Your task to perform on an android device: turn pop-ups on in chrome Image 0: 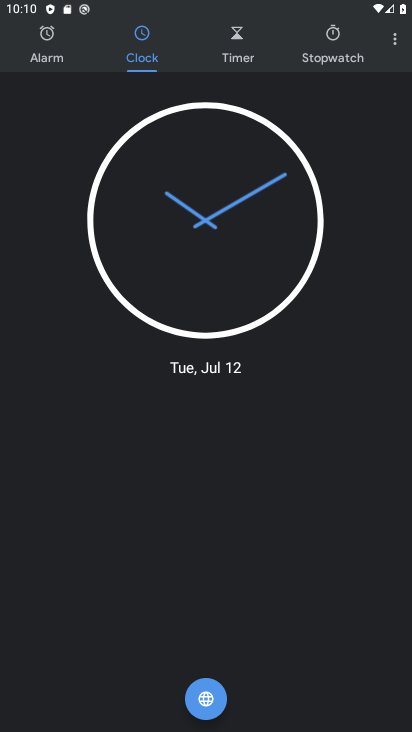
Step 0: press home button
Your task to perform on an android device: turn pop-ups on in chrome Image 1: 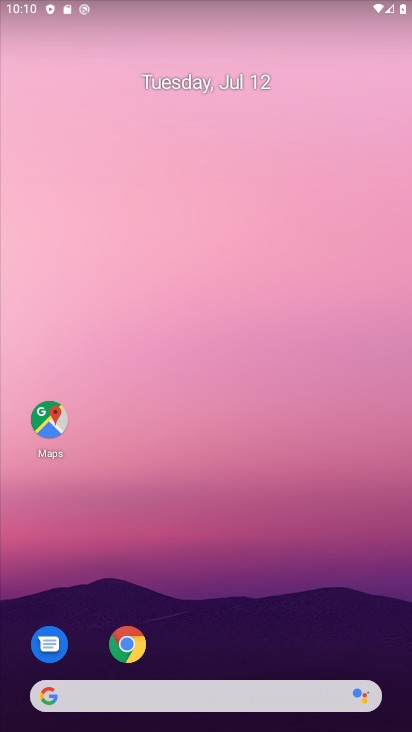
Step 1: click (198, 313)
Your task to perform on an android device: turn pop-ups on in chrome Image 2: 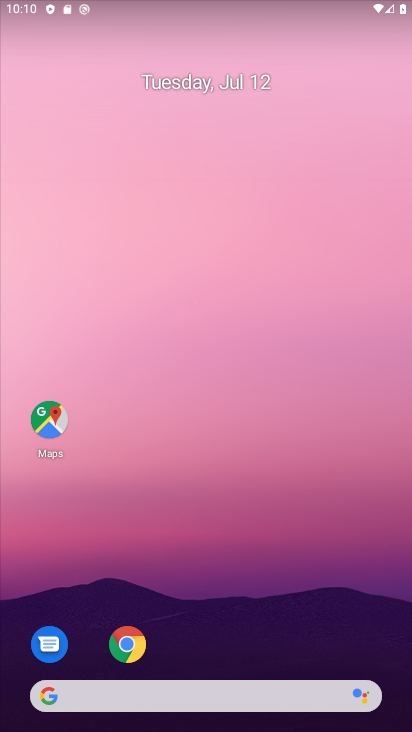
Step 2: click (123, 645)
Your task to perform on an android device: turn pop-ups on in chrome Image 3: 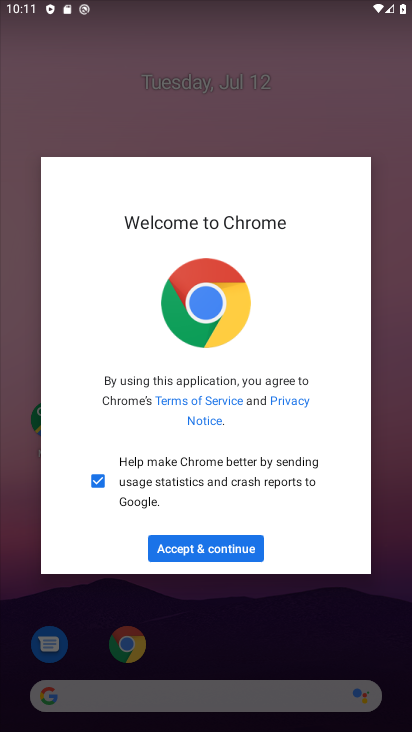
Step 3: click (198, 542)
Your task to perform on an android device: turn pop-ups on in chrome Image 4: 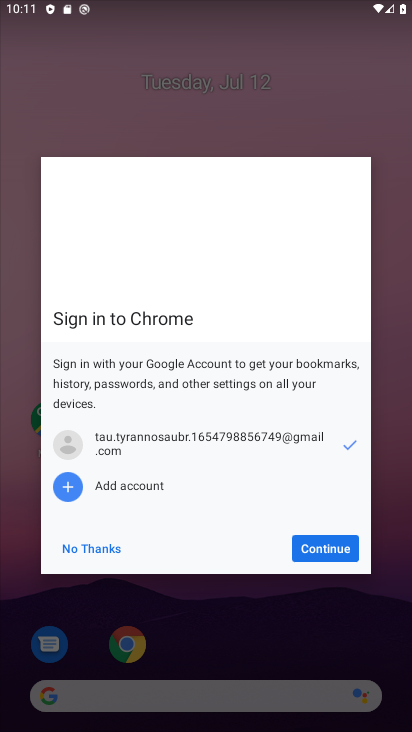
Step 4: click (336, 546)
Your task to perform on an android device: turn pop-ups on in chrome Image 5: 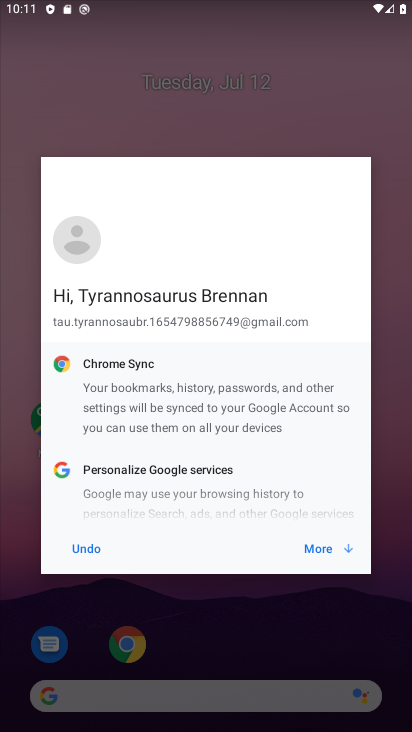
Step 5: click (336, 546)
Your task to perform on an android device: turn pop-ups on in chrome Image 6: 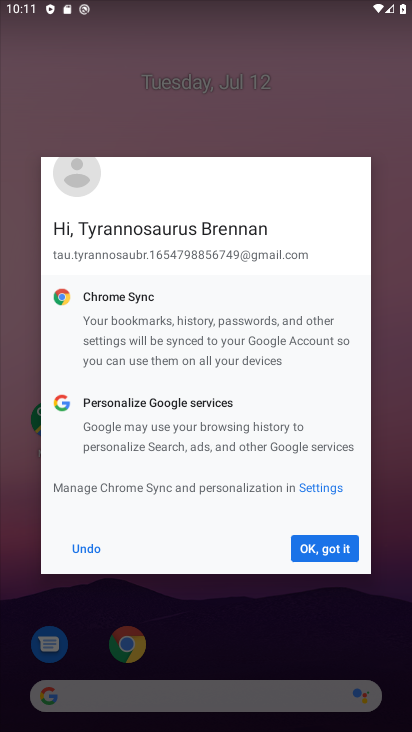
Step 6: click (336, 546)
Your task to perform on an android device: turn pop-ups on in chrome Image 7: 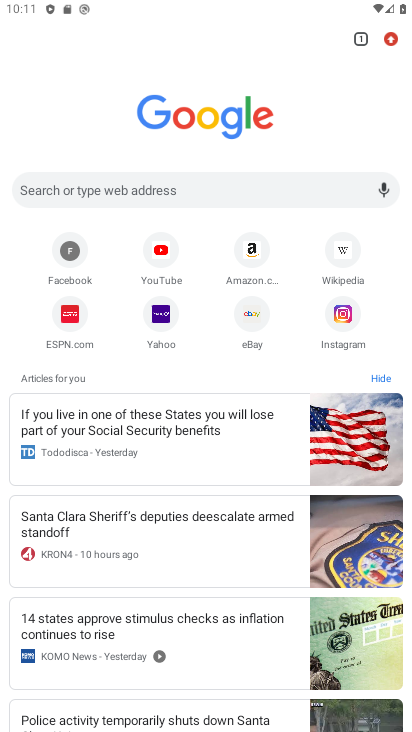
Step 7: click (387, 40)
Your task to perform on an android device: turn pop-ups on in chrome Image 8: 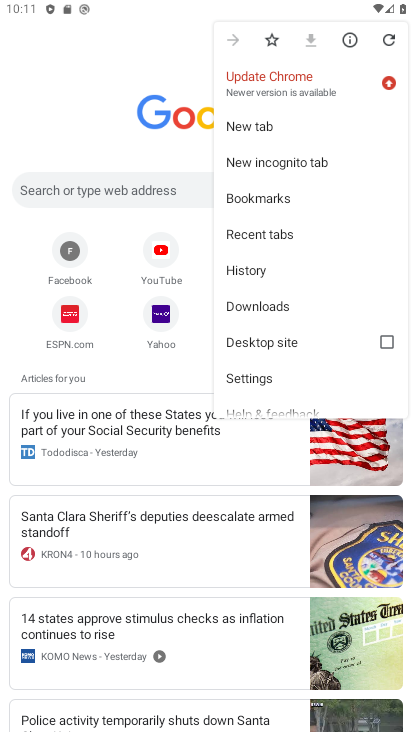
Step 8: click (246, 385)
Your task to perform on an android device: turn pop-ups on in chrome Image 9: 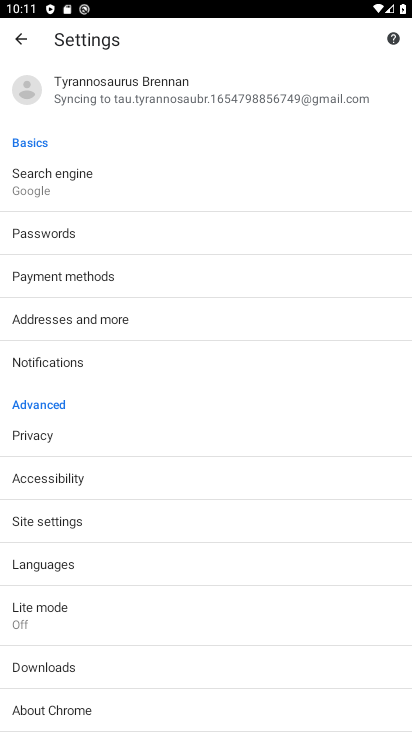
Step 9: click (29, 518)
Your task to perform on an android device: turn pop-ups on in chrome Image 10: 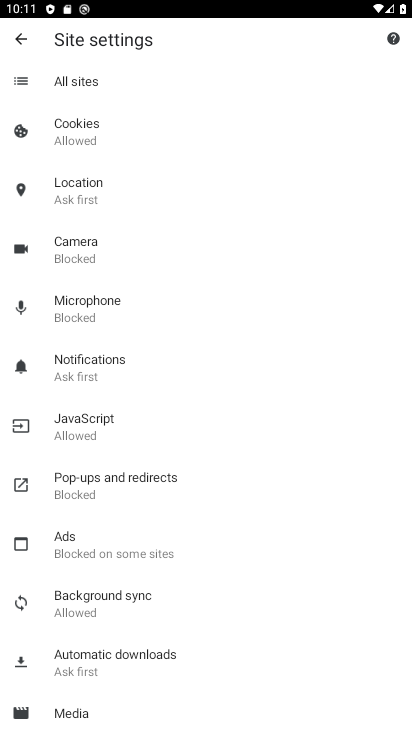
Step 10: click (98, 496)
Your task to perform on an android device: turn pop-ups on in chrome Image 11: 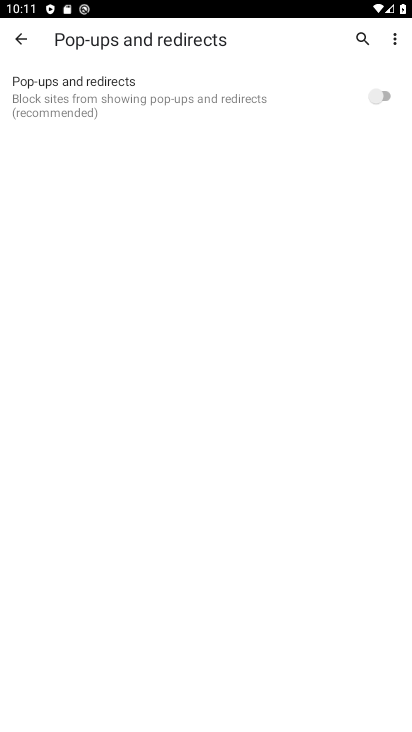
Step 11: click (386, 91)
Your task to perform on an android device: turn pop-ups on in chrome Image 12: 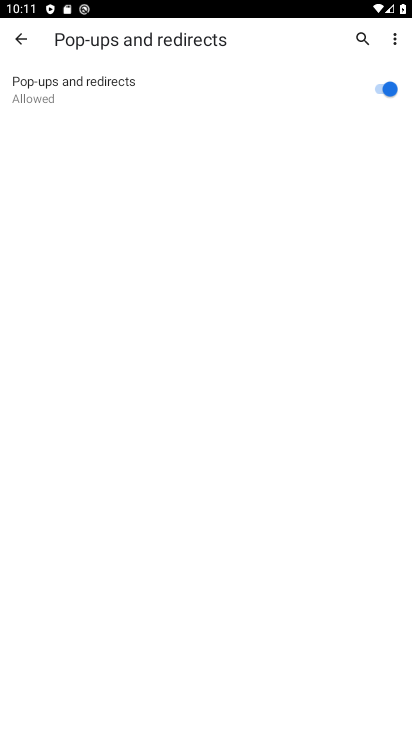
Step 12: task complete